Your task to perform on an android device: Search for sushi restaurants on Maps Image 0: 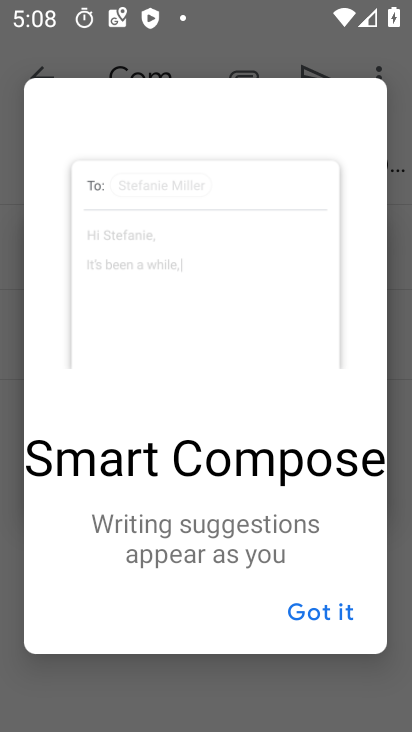
Step 0: press home button
Your task to perform on an android device: Search for sushi restaurants on Maps Image 1: 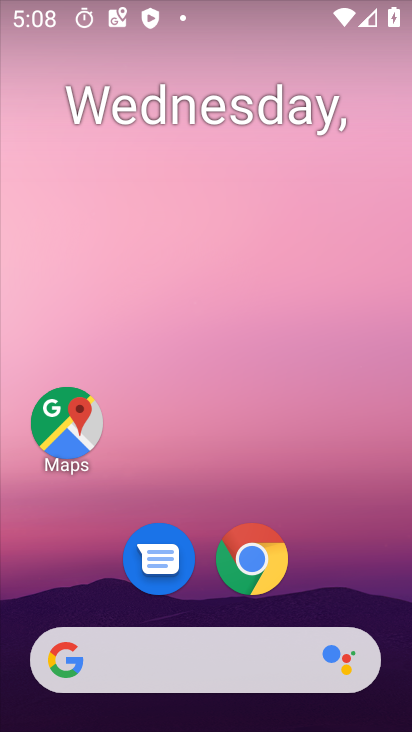
Step 1: click (70, 407)
Your task to perform on an android device: Search for sushi restaurants on Maps Image 2: 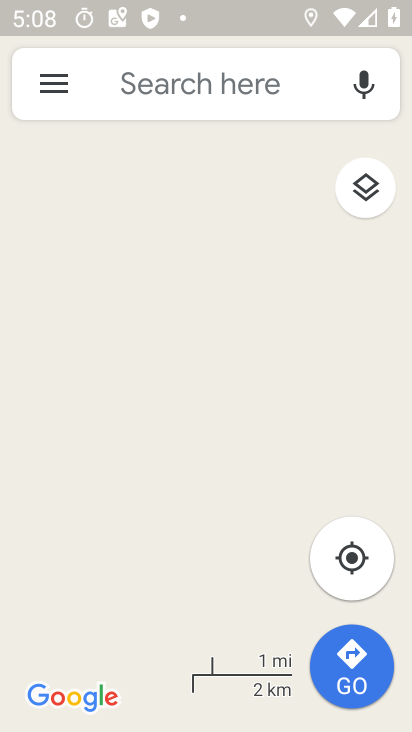
Step 2: click (208, 84)
Your task to perform on an android device: Search for sushi restaurants on Maps Image 3: 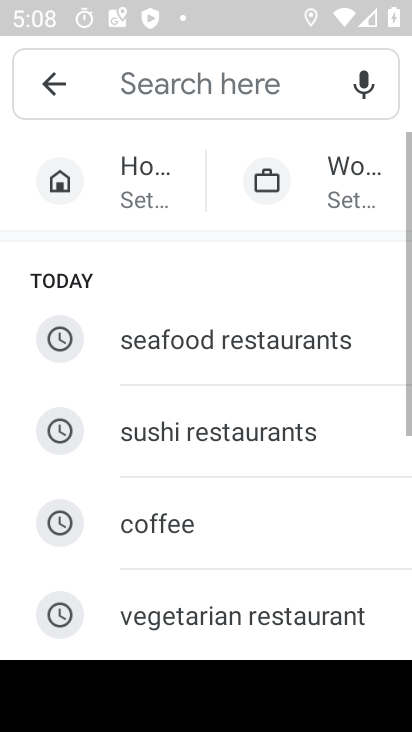
Step 3: click (265, 422)
Your task to perform on an android device: Search for sushi restaurants on Maps Image 4: 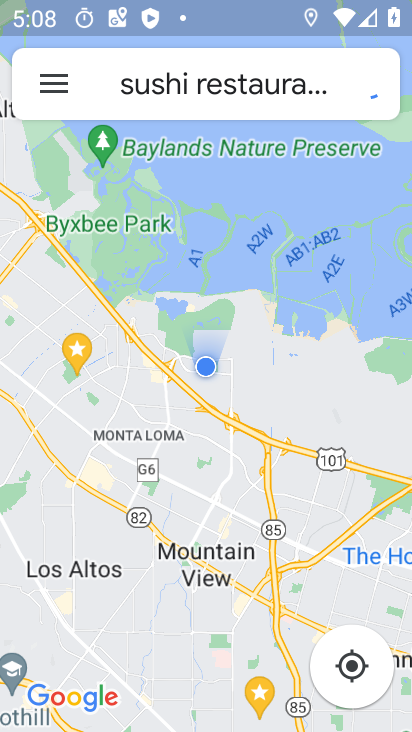
Step 4: task complete